Your task to perform on an android device: Go to Reddit.com Image 0: 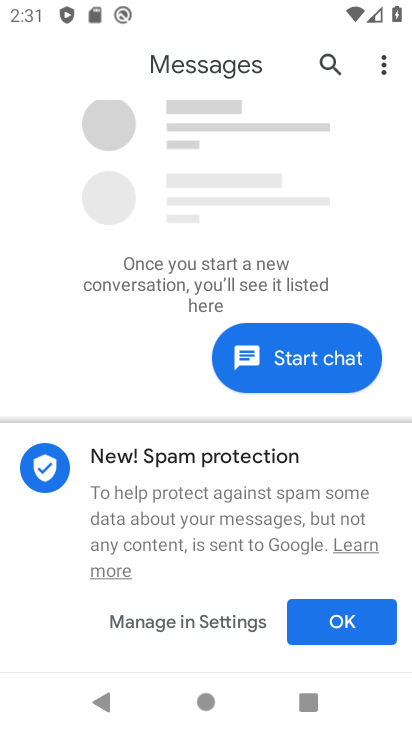
Step 0: press back button
Your task to perform on an android device: Go to Reddit.com Image 1: 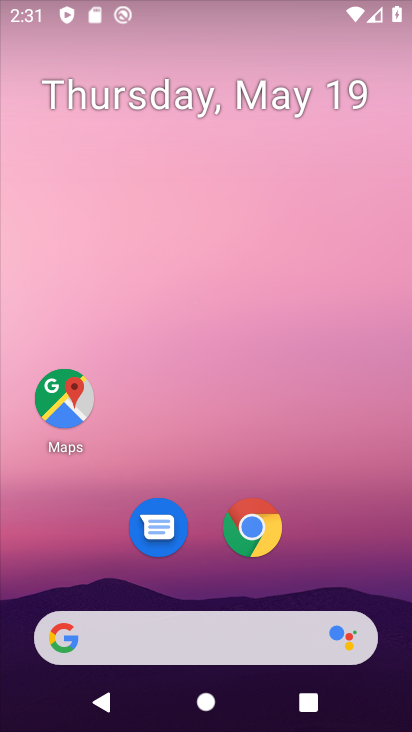
Step 1: drag from (323, 675) to (154, 29)
Your task to perform on an android device: Go to Reddit.com Image 2: 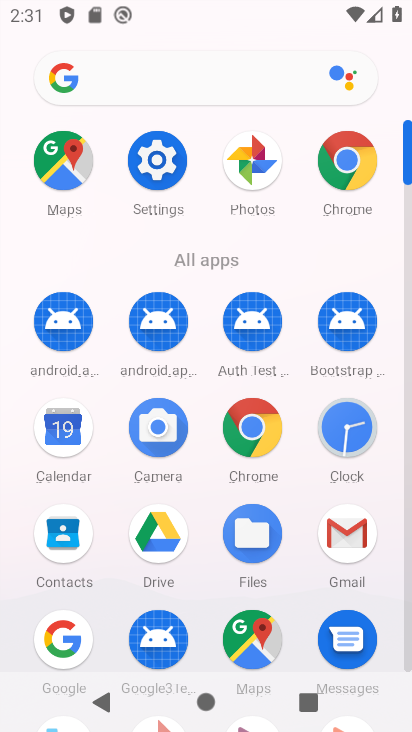
Step 2: click (343, 162)
Your task to perform on an android device: Go to Reddit.com Image 3: 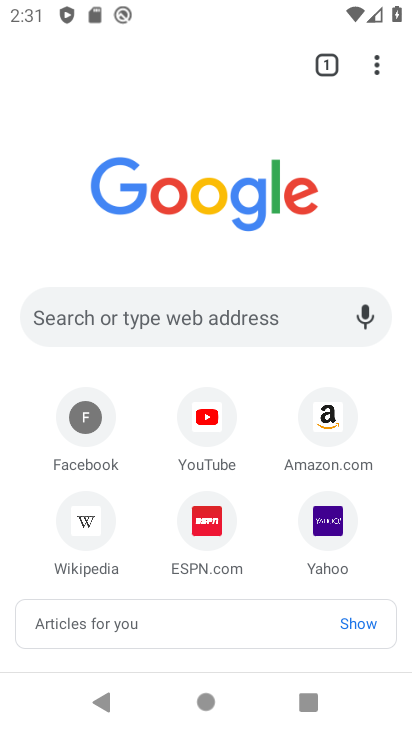
Step 3: click (63, 314)
Your task to perform on an android device: Go to Reddit.com Image 4: 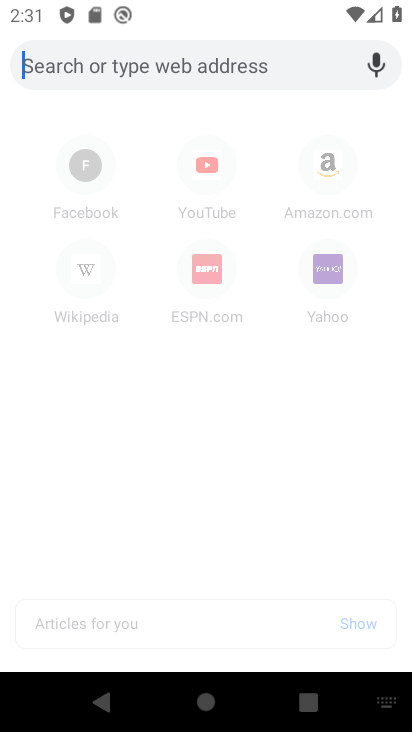
Step 4: type "reddit.com"
Your task to perform on an android device: Go to Reddit.com Image 5: 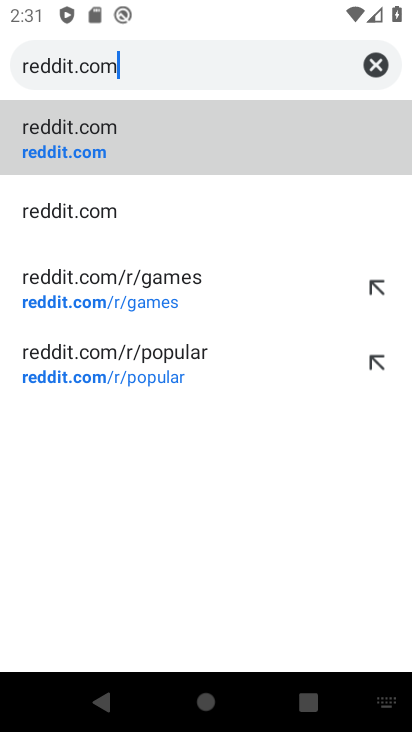
Step 5: click (80, 152)
Your task to perform on an android device: Go to Reddit.com Image 6: 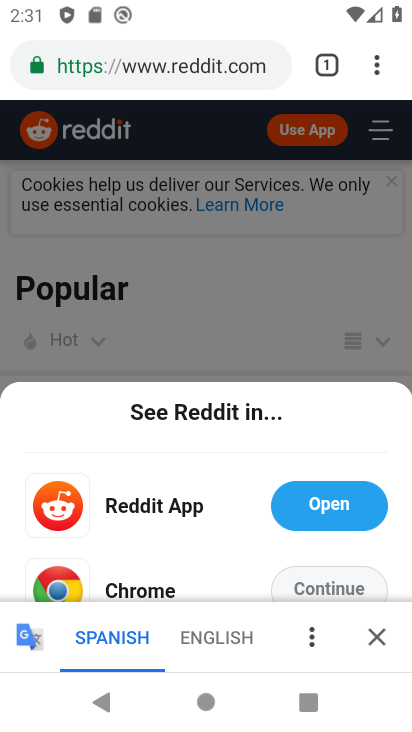
Step 6: task complete